Your task to perform on an android device: turn off location history Image 0: 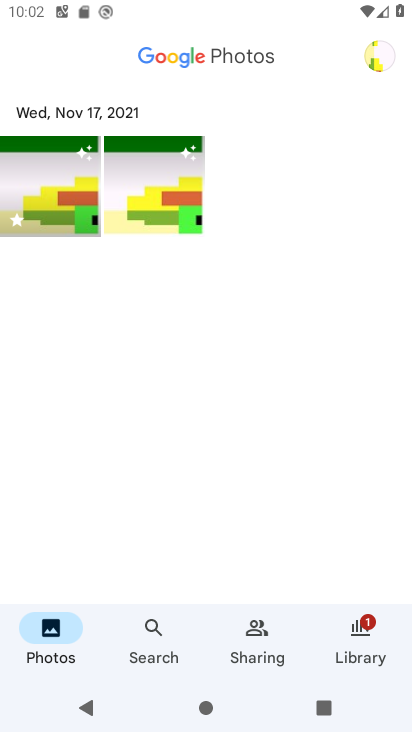
Step 0: press home button
Your task to perform on an android device: turn off location history Image 1: 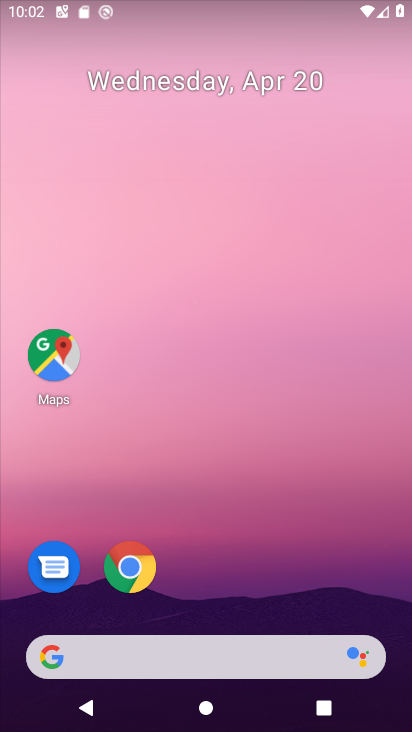
Step 1: drag from (339, 558) to (337, 126)
Your task to perform on an android device: turn off location history Image 2: 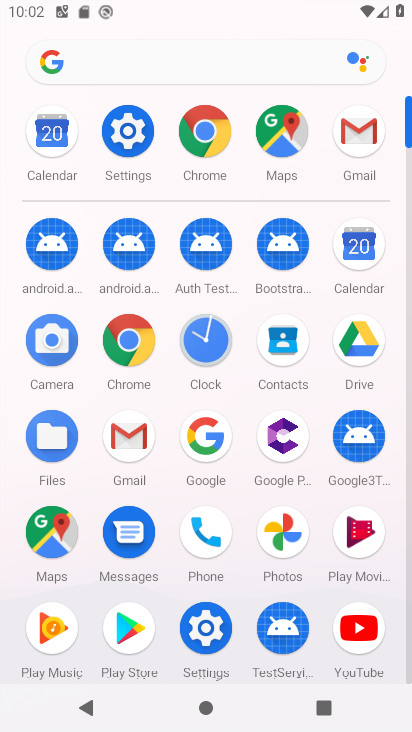
Step 2: click (130, 140)
Your task to perform on an android device: turn off location history Image 3: 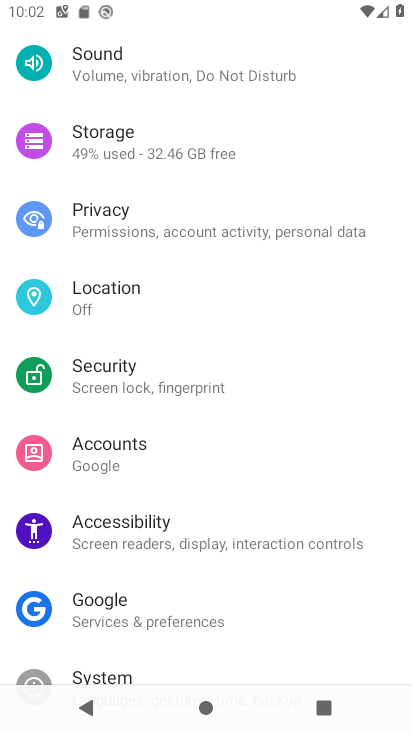
Step 3: click (143, 288)
Your task to perform on an android device: turn off location history Image 4: 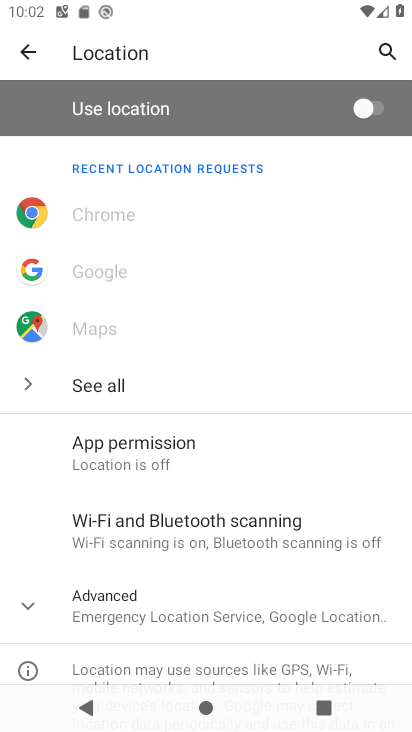
Step 4: click (297, 602)
Your task to perform on an android device: turn off location history Image 5: 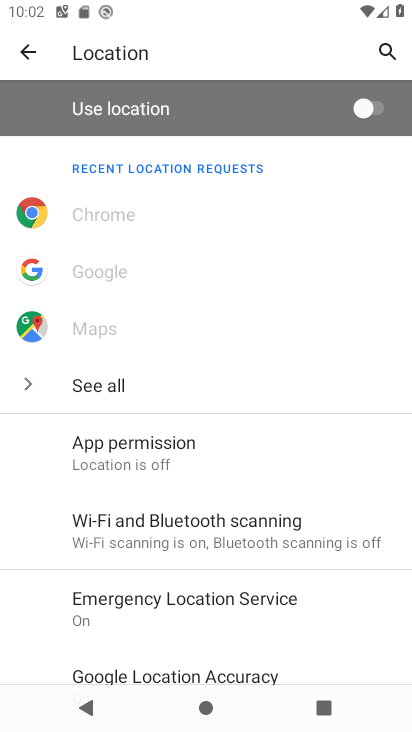
Step 5: drag from (351, 619) to (356, 398)
Your task to perform on an android device: turn off location history Image 6: 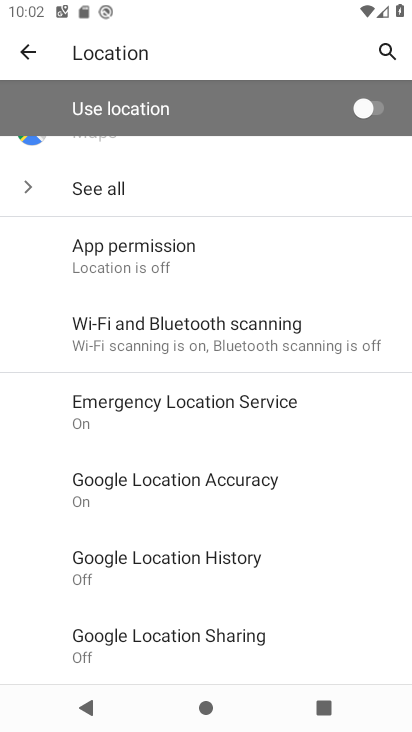
Step 6: click (182, 577)
Your task to perform on an android device: turn off location history Image 7: 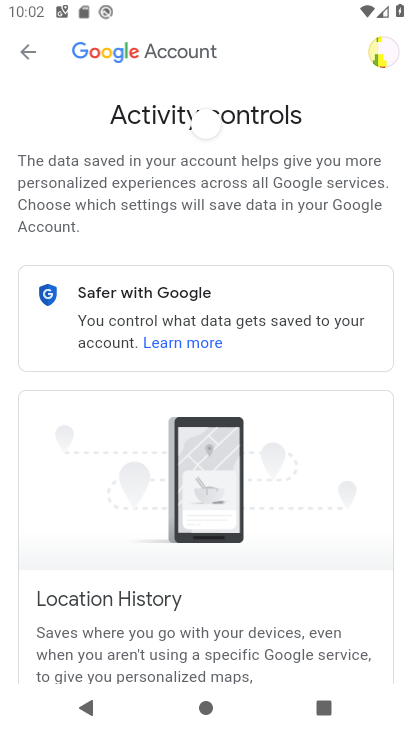
Step 7: task complete